Your task to perform on an android device: change text size in settings app Image 0: 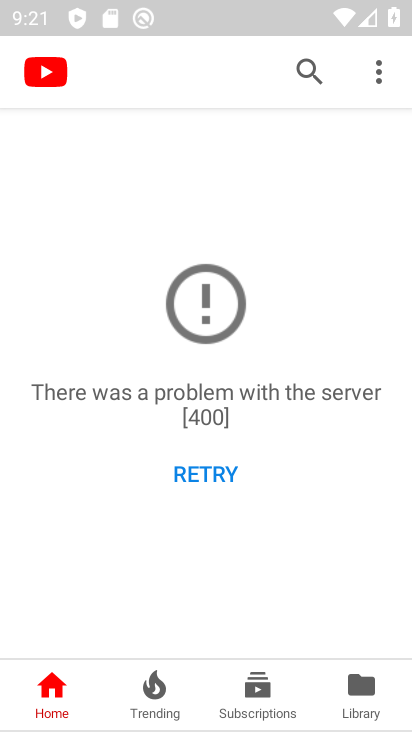
Step 0: press home button
Your task to perform on an android device: change text size in settings app Image 1: 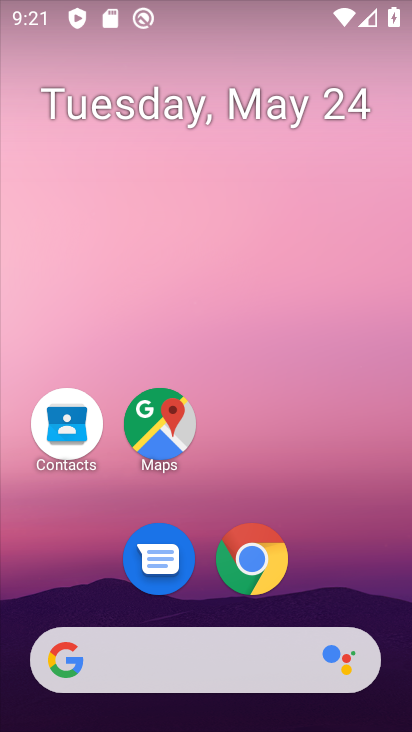
Step 1: drag from (351, 602) to (311, 277)
Your task to perform on an android device: change text size in settings app Image 2: 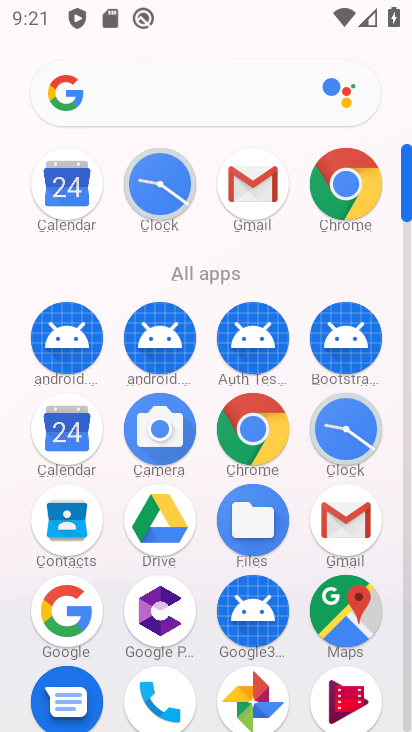
Step 2: click (405, 697)
Your task to perform on an android device: change text size in settings app Image 3: 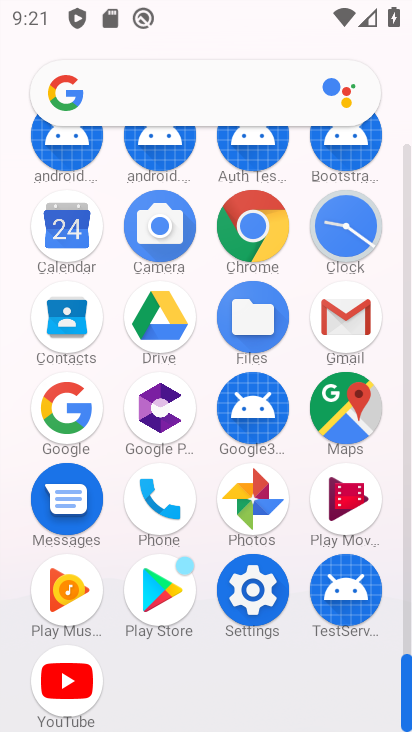
Step 3: click (252, 629)
Your task to perform on an android device: change text size in settings app Image 4: 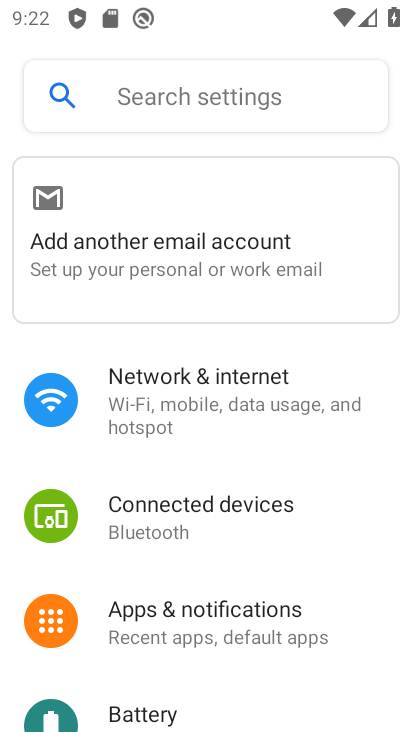
Step 4: drag from (255, 554) to (256, 295)
Your task to perform on an android device: change text size in settings app Image 5: 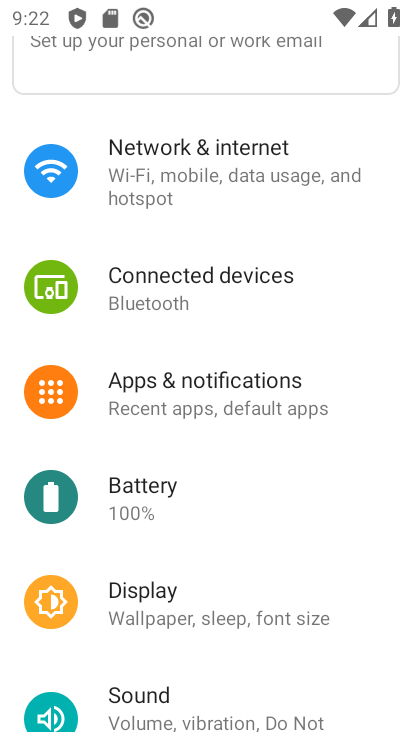
Step 5: drag from (199, 651) to (190, 196)
Your task to perform on an android device: change text size in settings app Image 6: 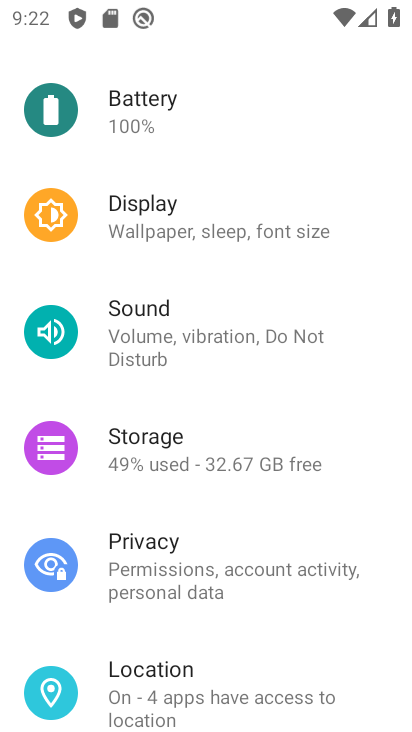
Step 6: drag from (253, 633) to (243, 554)
Your task to perform on an android device: change text size in settings app Image 7: 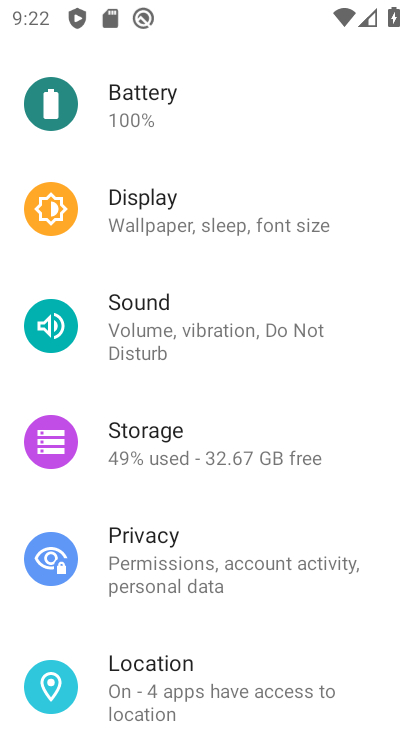
Step 7: click (293, 211)
Your task to perform on an android device: change text size in settings app Image 8: 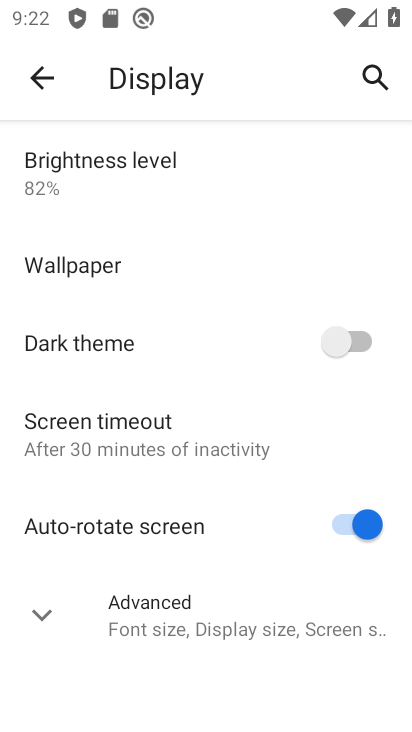
Step 8: click (226, 610)
Your task to perform on an android device: change text size in settings app Image 9: 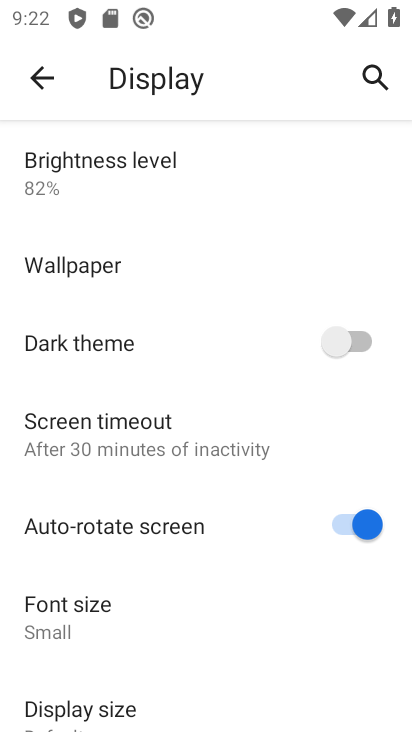
Step 9: click (227, 616)
Your task to perform on an android device: change text size in settings app Image 10: 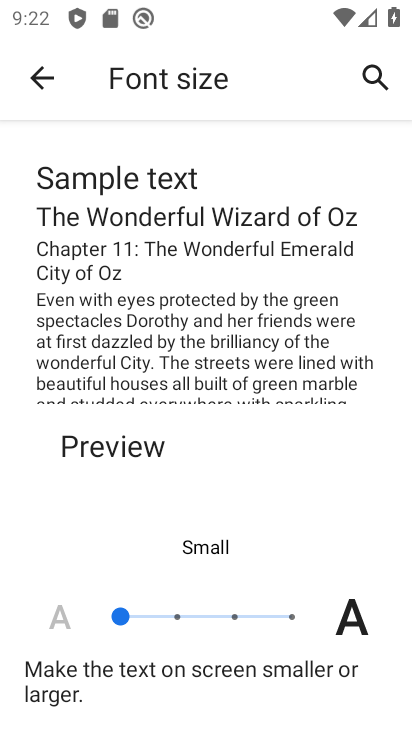
Step 10: click (182, 623)
Your task to perform on an android device: change text size in settings app Image 11: 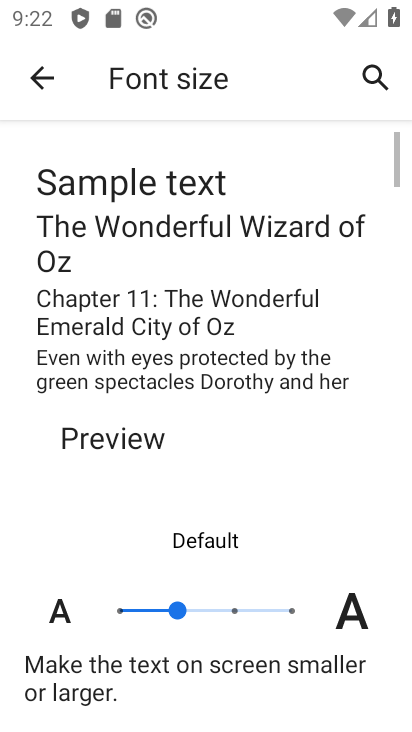
Step 11: task complete